Your task to perform on an android device: open device folders in google photos Image 0: 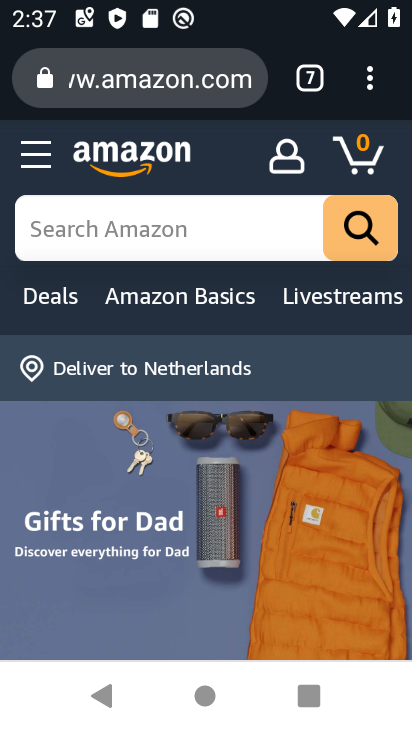
Step 0: press home button
Your task to perform on an android device: open device folders in google photos Image 1: 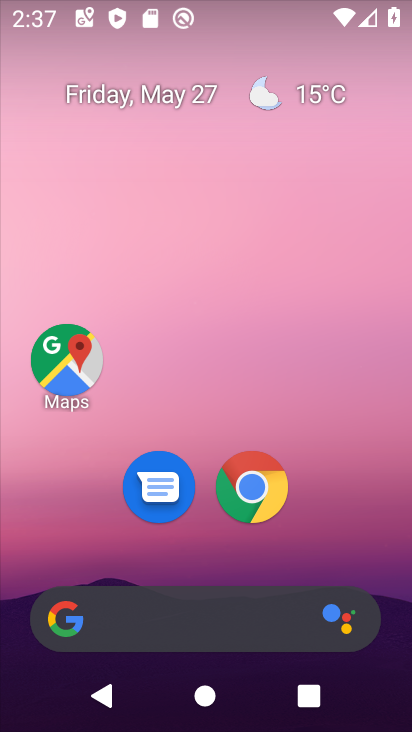
Step 1: drag from (211, 391) to (165, 7)
Your task to perform on an android device: open device folders in google photos Image 2: 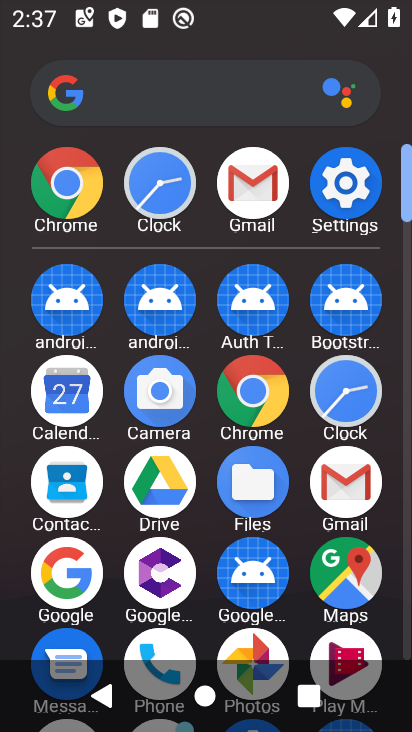
Step 2: click (254, 642)
Your task to perform on an android device: open device folders in google photos Image 3: 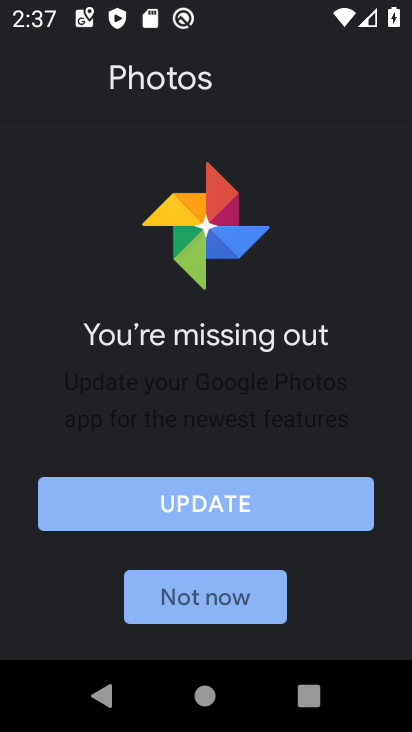
Step 3: click (173, 607)
Your task to perform on an android device: open device folders in google photos Image 4: 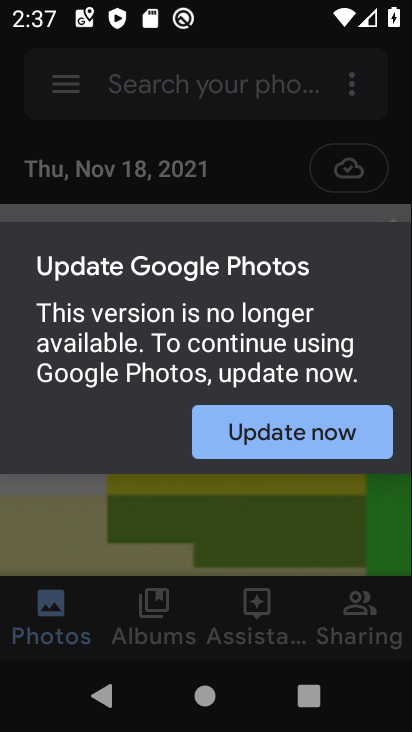
Step 4: click (274, 446)
Your task to perform on an android device: open device folders in google photos Image 5: 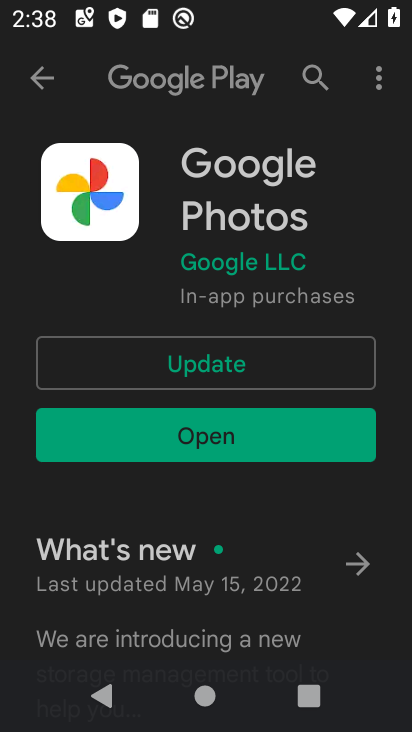
Step 5: click (153, 425)
Your task to perform on an android device: open device folders in google photos Image 6: 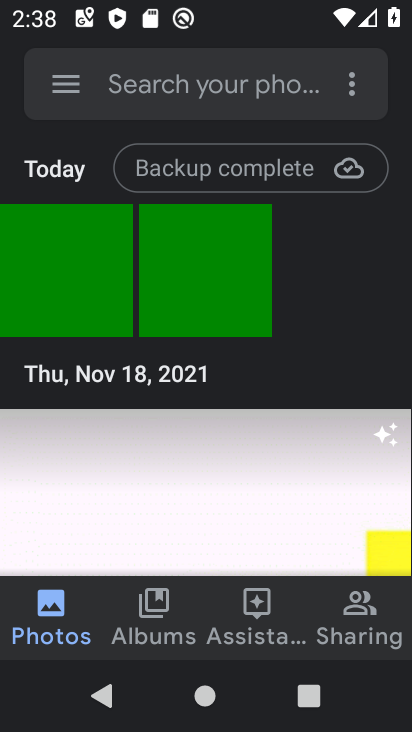
Step 6: click (62, 88)
Your task to perform on an android device: open device folders in google photos Image 7: 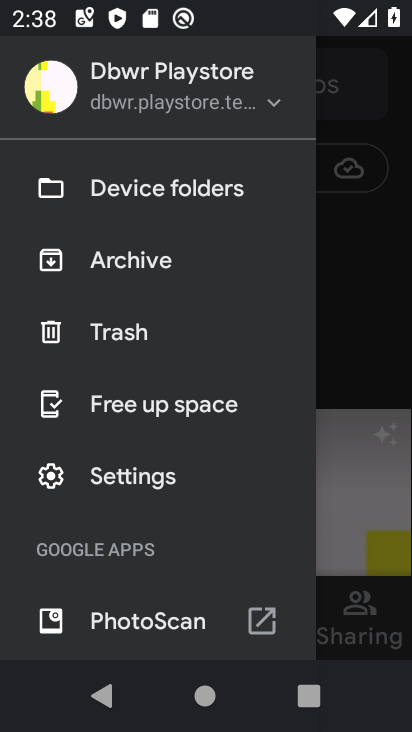
Step 7: click (83, 202)
Your task to perform on an android device: open device folders in google photos Image 8: 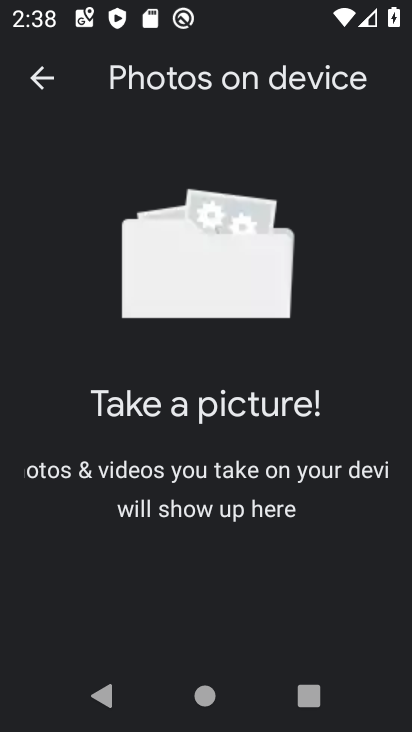
Step 8: task complete